Your task to perform on an android device: Open calendar and show me the fourth week of next month Image 0: 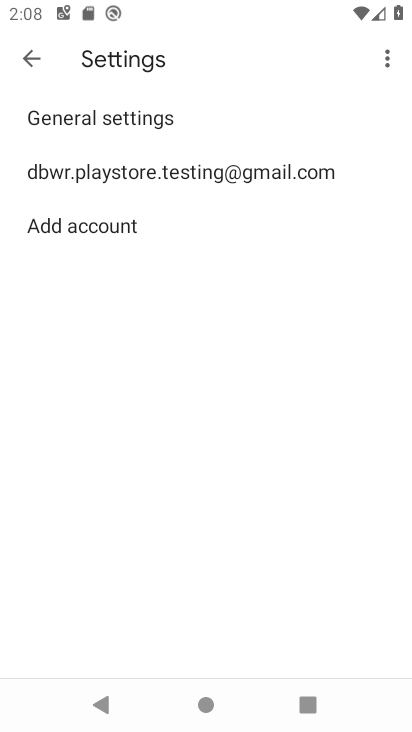
Step 0: press home button
Your task to perform on an android device: Open calendar and show me the fourth week of next month Image 1: 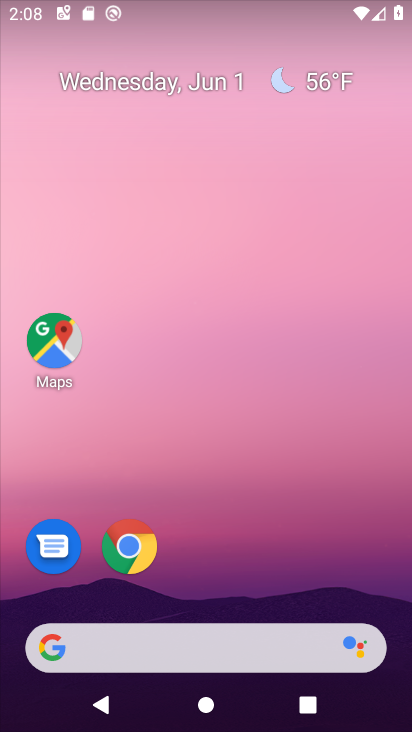
Step 1: drag from (124, 491) to (187, 21)
Your task to perform on an android device: Open calendar and show me the fourth week of next month Image 2: 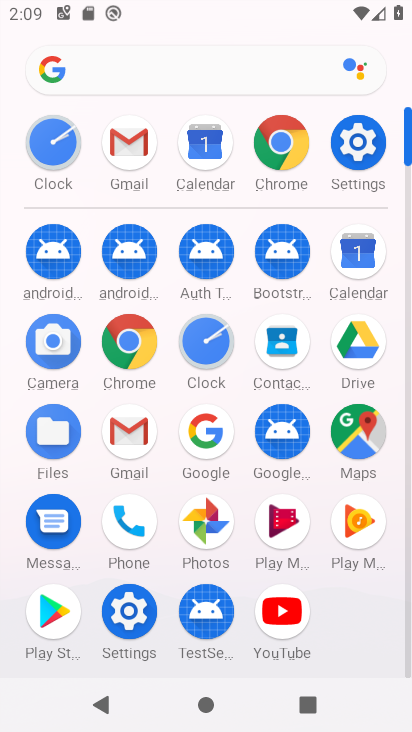
Step 2: click (355, 265)
Your task to perform on an android device: Open calendar and show me the fourth week of next month Image 3: 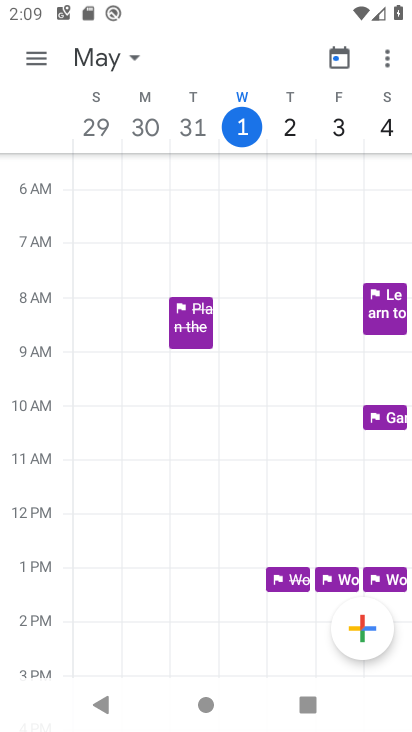
Step 3: click (129, 63)
Your task to perform on an android device: Open calendar and show me the fourth week of next month Image 4: 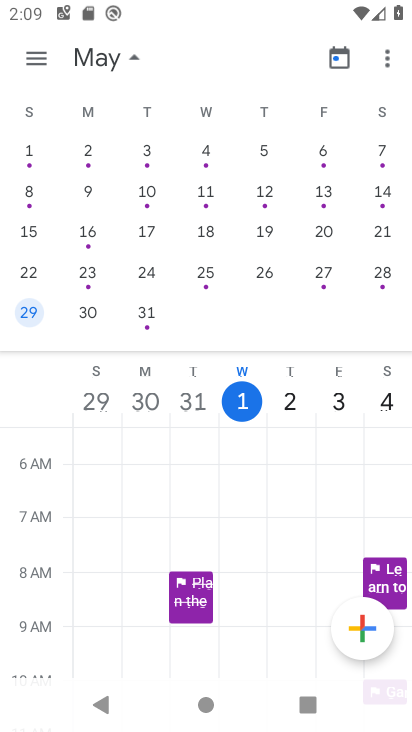
Step 4: drag from (386, 326) to (13, 332)
Your task to perform on an android device: Open calendar and show me the fourth week of next month Image 5: 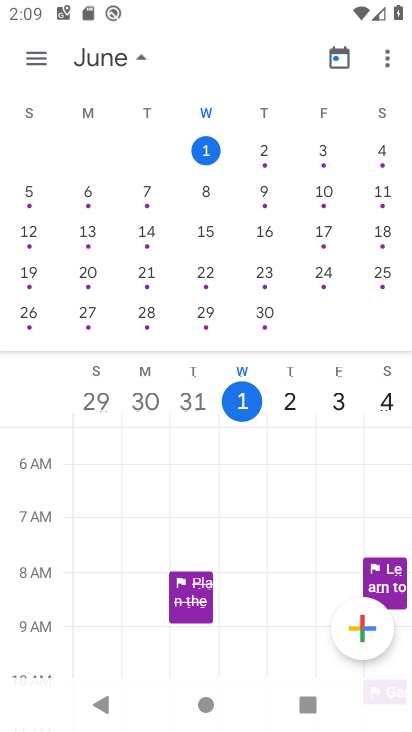
Step 5: drag from (366, 314) to (7, 316)
Your task to perform on an android device: Open calendar and show me the fourth week of next month Image 6: 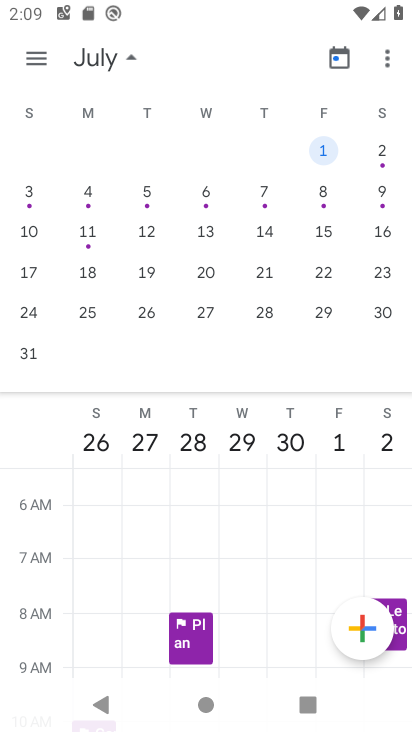
Step 6: click (131, 63)
Your task to perform on an android device: Open calendar and show me the fourth week of next month Image 7: 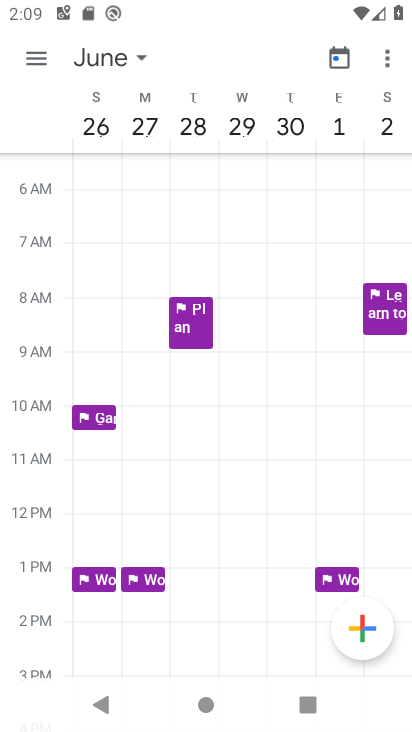
Step 7: drag from (109, 122) to (4, 112)
Your task to perform on an android device: Open calendar and show me the fourth week of next month Image 8: 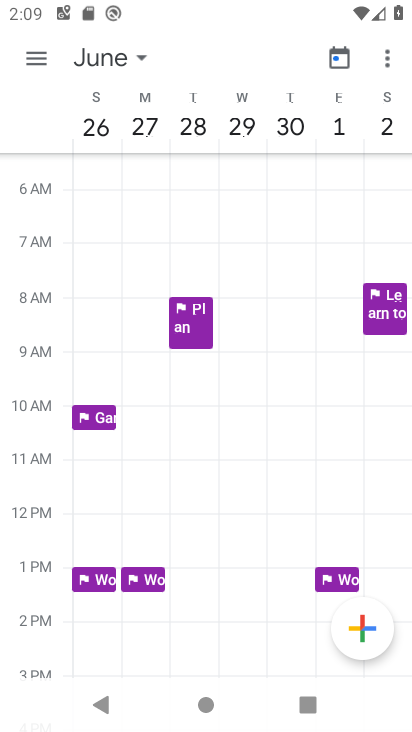
Step 8: click (136, 59)
Your task to perform on an android device: Open calendar and show me the fourth week of next month Image 9: 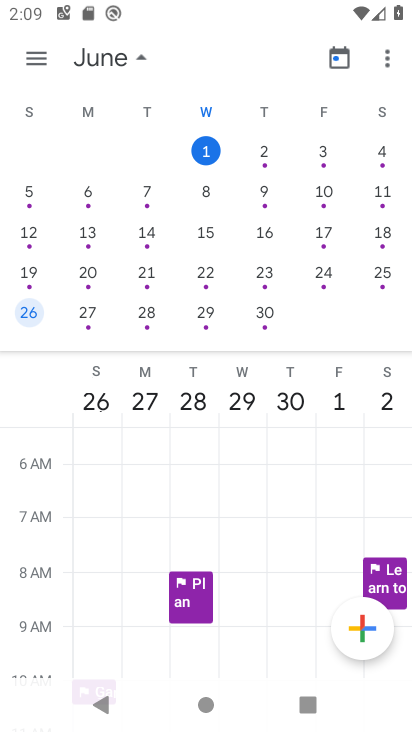
Step 9: drag from (383, 315) to (41, 303)
Your task to perform on an android device: Open calendar and show me the fourth week of next month Image 10: 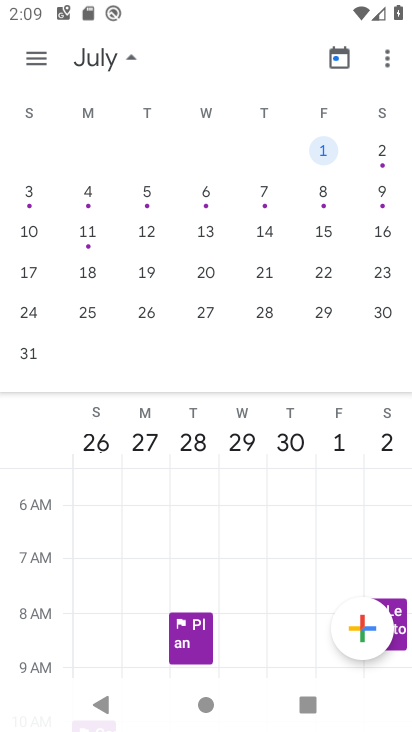
Step 10: click (131, 56)
Your task to perform on an android device: Open calendar and show me the fourth week of next month Image 11: 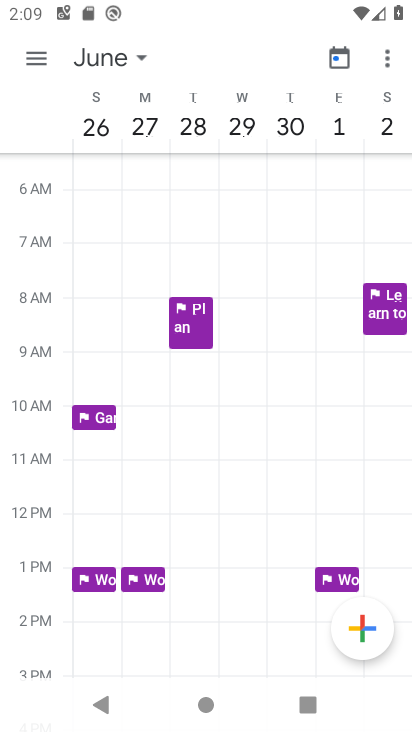
Step 11: task complete